Your task to perform on an android device: Go to Yahoo.com Image 0: 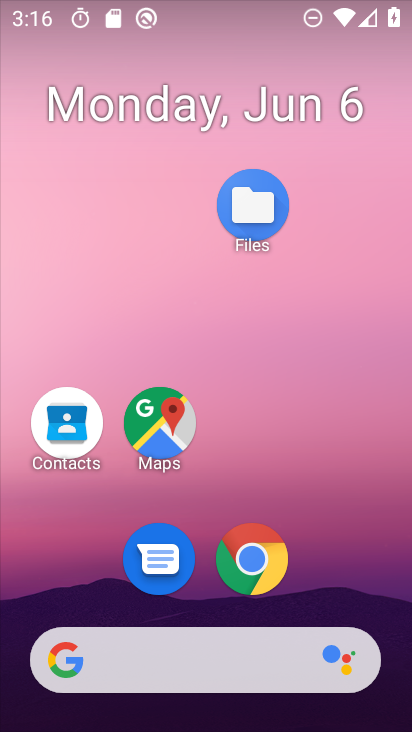
Step 0: drag from (146, 592) to (211, 98)
Your task to perform on an android device: Go to Yahoo.com Image 1: 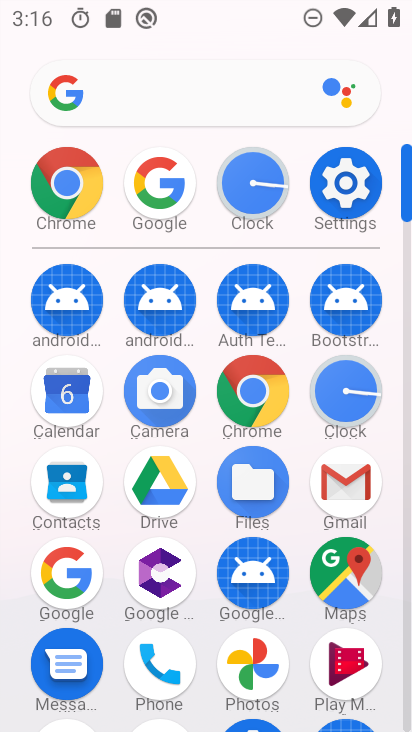
Step 1: click (75, 202)
Your task to perform on an android device: Go to Yahoo.com Image 2: 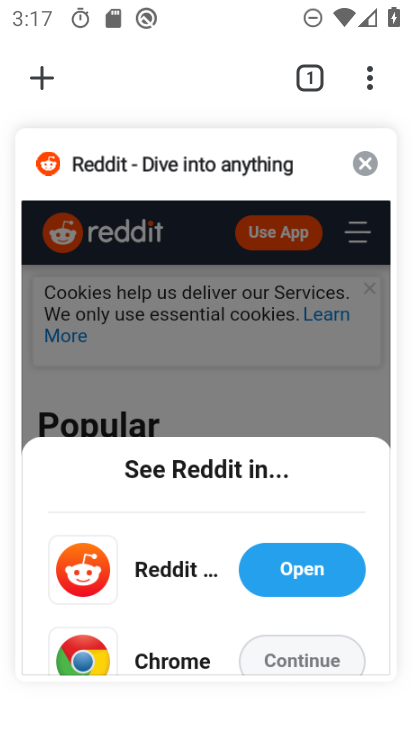
Step 2: click (40, 83)
Your task to perform on an android device: Go to Yahoo.com Image 3: 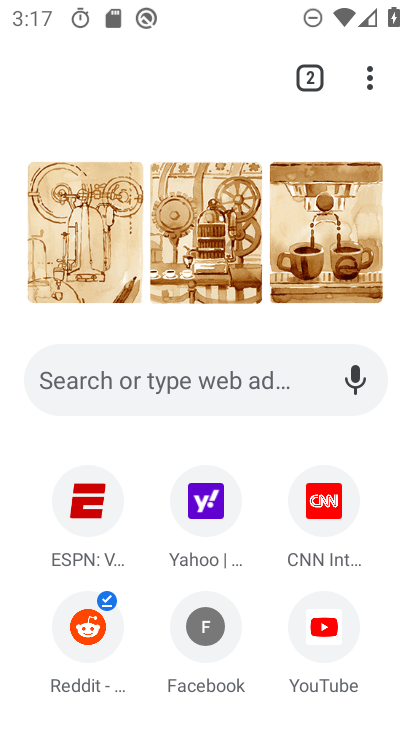
Step 3: click (205, 515)
Your task to perform on an android device: Go to Yahoo.com Image 4: 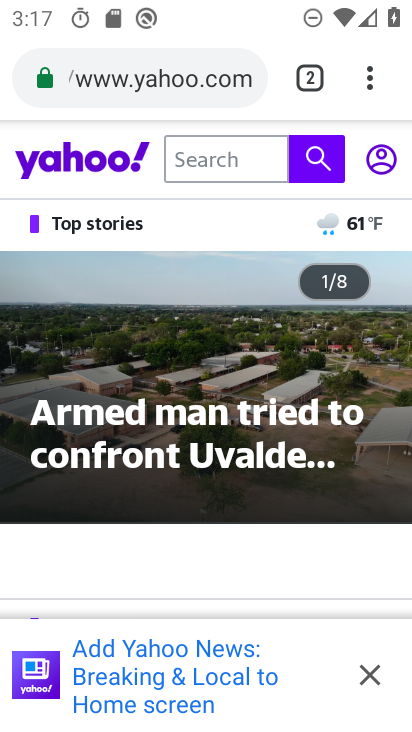
Step 4: task complete